Your task to perform on an android device: What's the weather going to be tomorrow? Image 0: 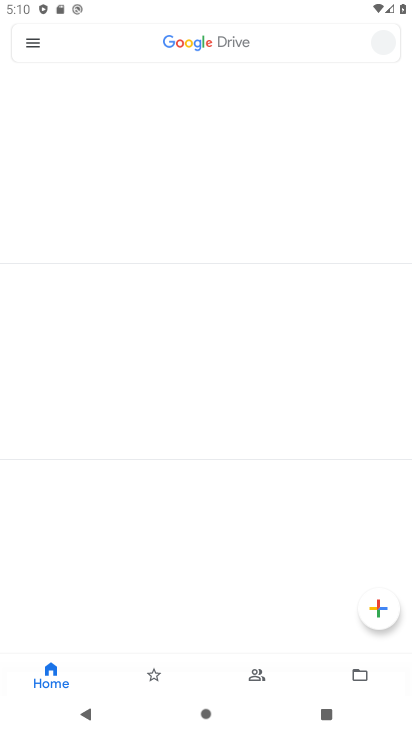
Step 0: click (405, 164)
Your task to perform on an android device: What's the weather going to be tomorrow? Image 1: 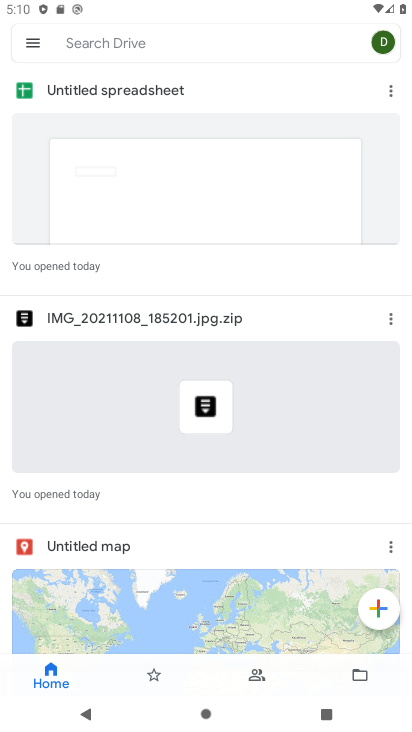
Step 1: press home button
Your task to perform on an android device: What's the weather going to be tomorrow? Image 2: 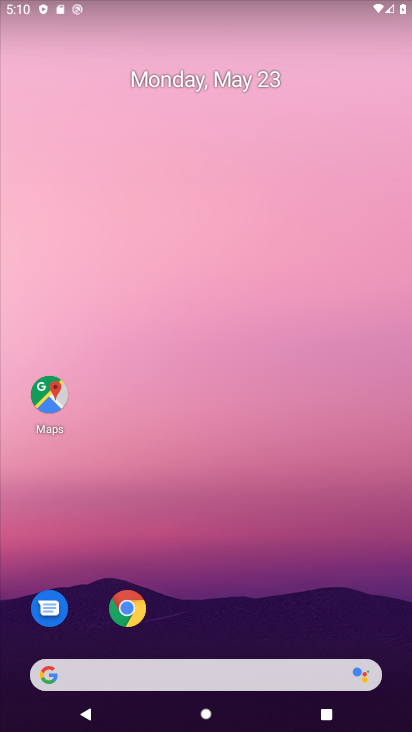
Step 2: drag from (42, 498) to (137, 177)
Your task to perform on an android device: What's the weather going to be tomorrow? Image 3: 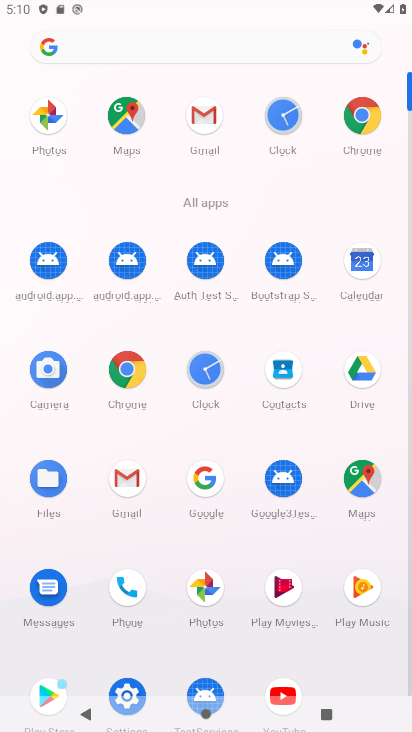
Step 3: press home button
Your task to perform on an android device: What's the weather going to be tomorrow? Image 4: 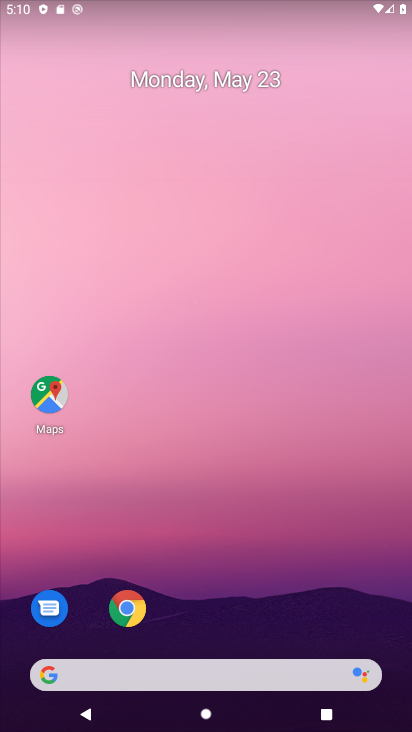
Step 4: click (113, 673)
Your task to perform on an android device: What's the weather going to be tomorrow? Image 5: 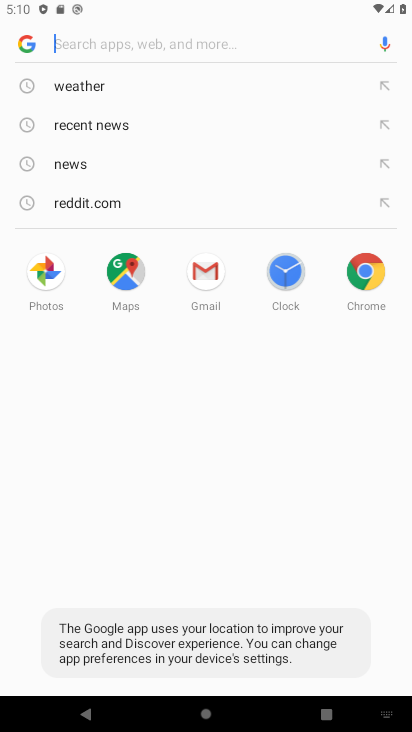
Step 5: click (78, 93)
Your task to perform on an android device: What's the weather going to be tomorrow? Image 6: 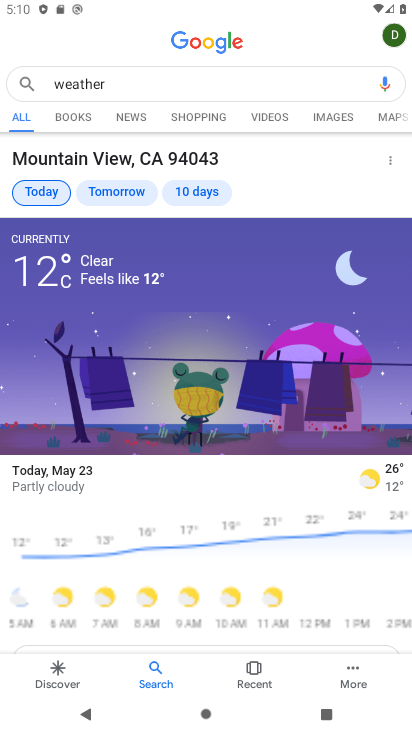
Step 6: task complete